Your task to perform on an android device: check out phone information Image 0: 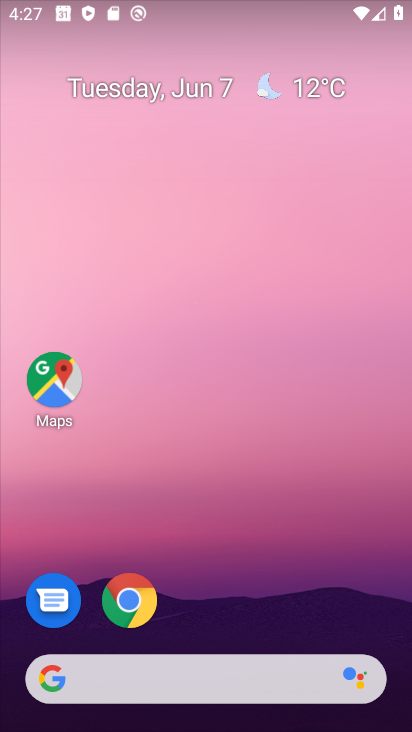
Step 0: drag from (183, 637) to (191, 239)
Your task to perform on an android device: check out phone information Image 1: 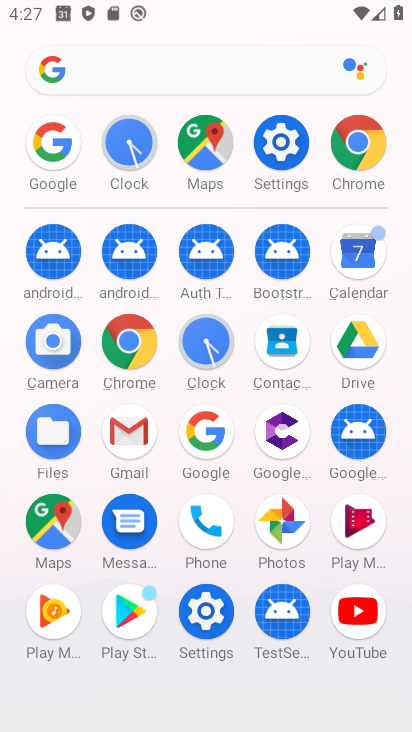
Step 1: click (208, 509)
Your task to perform on an android device: check out phone information Image 2: 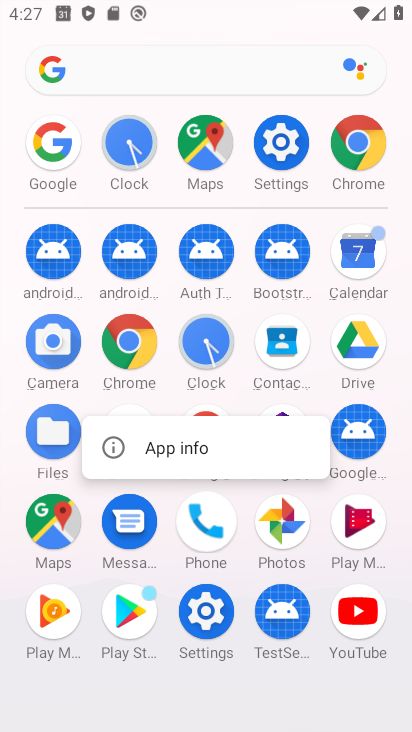
Step 2: click (202, 454)
Your task to perform on an android device: check out phone information Image 3: 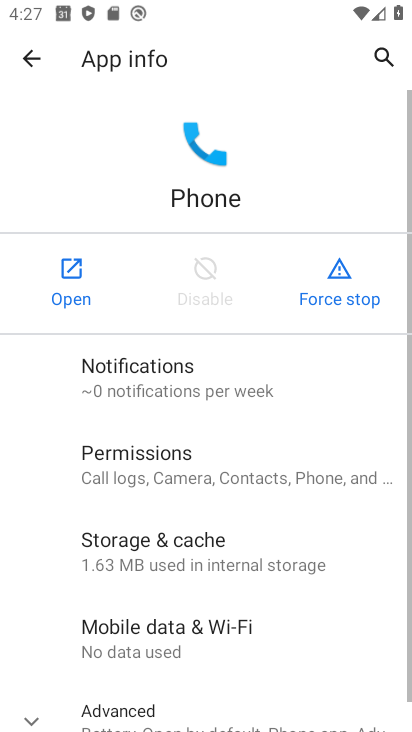
Step 3: drag from (241, 719) to (238, 394)
Your task to perform on an android device: check out phone information Image 4: 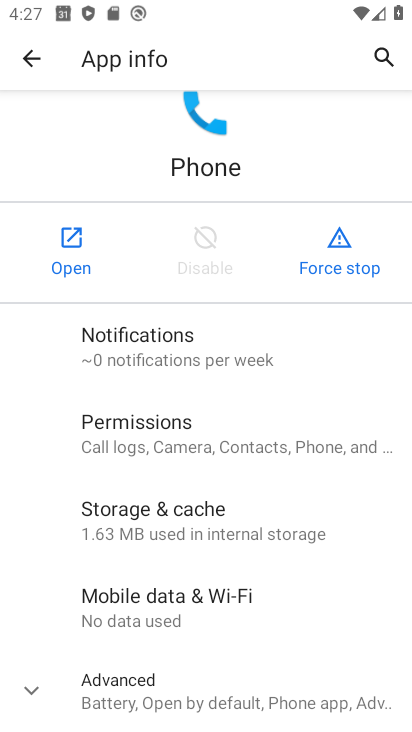
Step 4: click (153, 710)
Your task to perform on an android device: check out phone information Image 5: 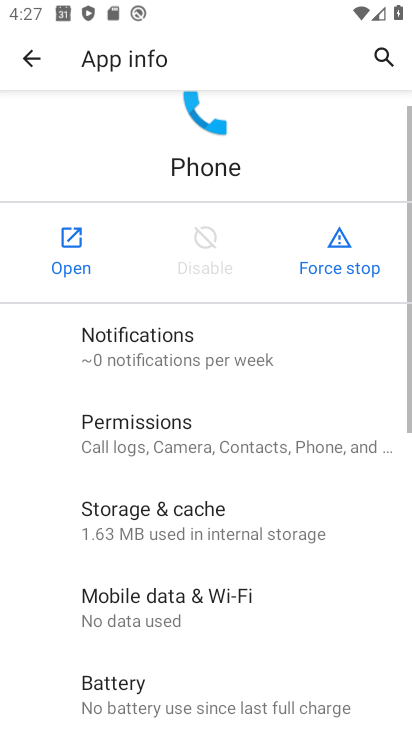
Step 5: task complete